Your task to perform on an android device: Open Chrome and go to settings Image 0: 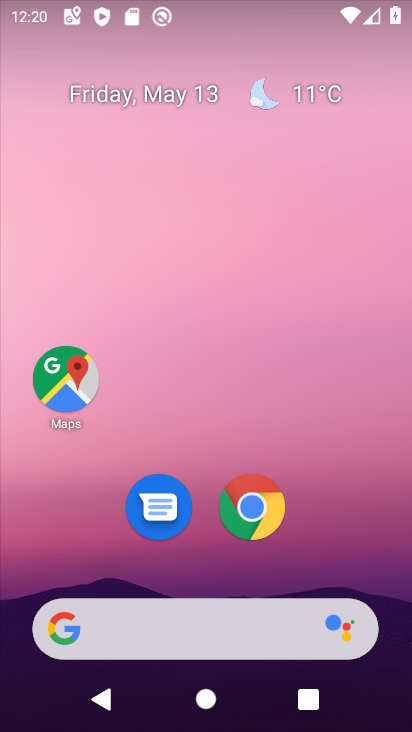
Step 0: click (262, 529)
Your task to perform on an android device: Open Chrome and go to settings Image 1: 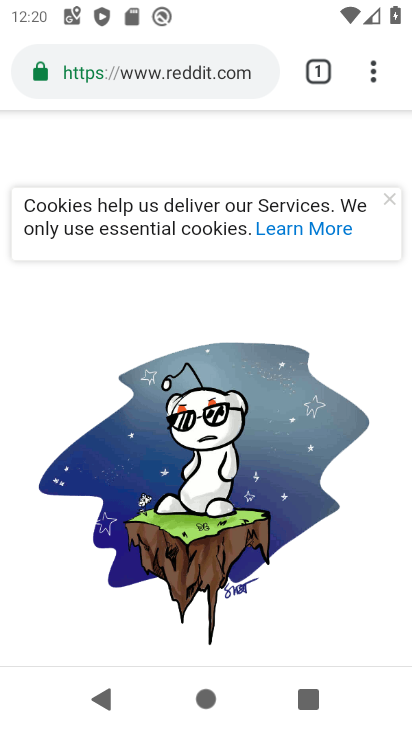
Step 1: task complete